Your task to perform on an android device: Open the web browser Image 0: 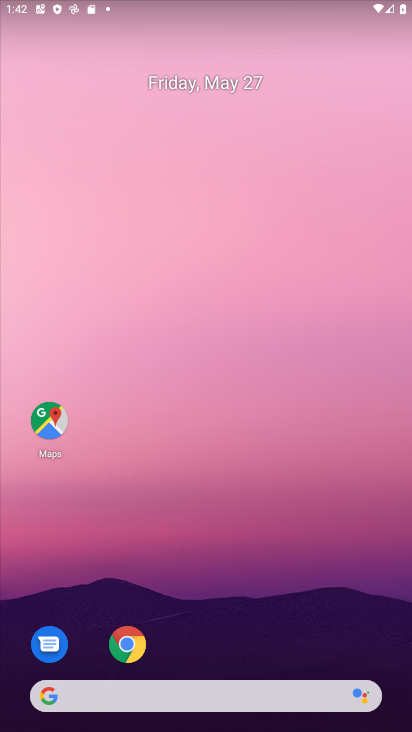
Step 0: drag from (320, 633) to (307, 78)
Your task to perform on an android device: Open the web browser Image 1: 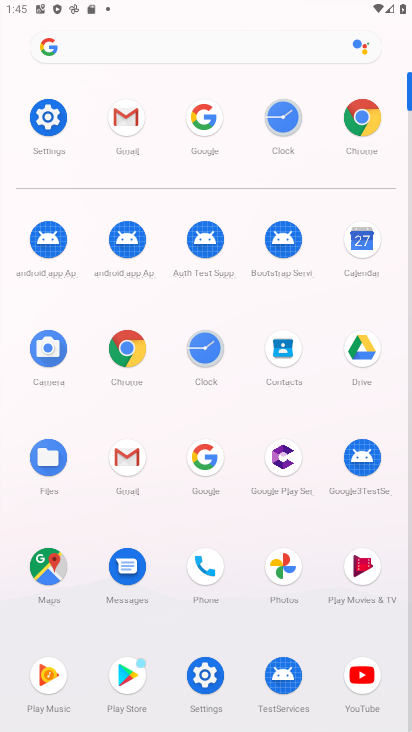
Step 1: click (131, 358)
Your task to perform on an android device: Open the web browser Image 2: 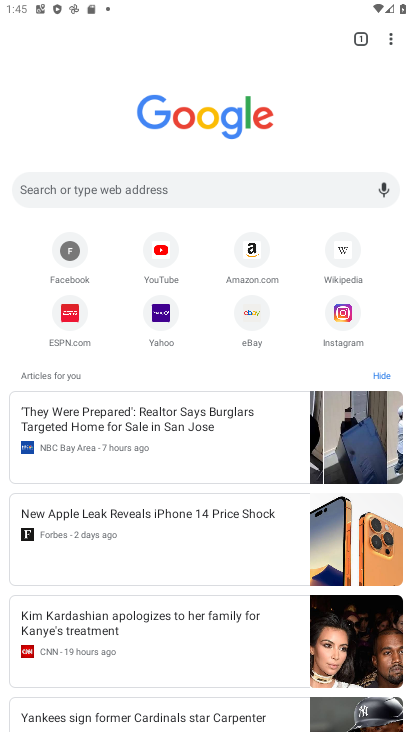
Step 2: task complete